Your task to perform on an android device: toggle improve location accuracy Image 0: 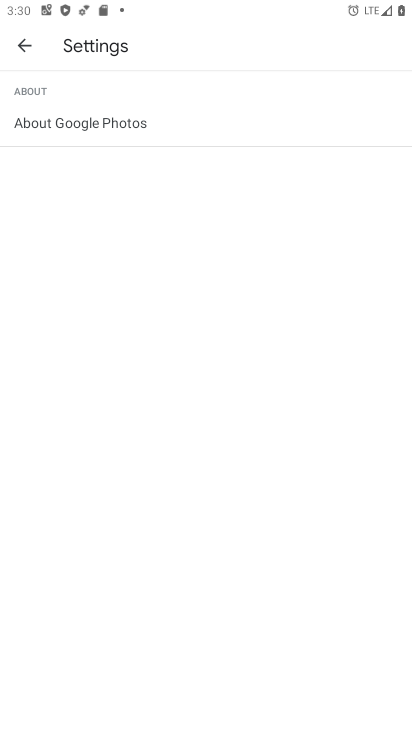
Step 0: press home button
Your task to perform on an android device: toggle improve location accuracy Image 1: 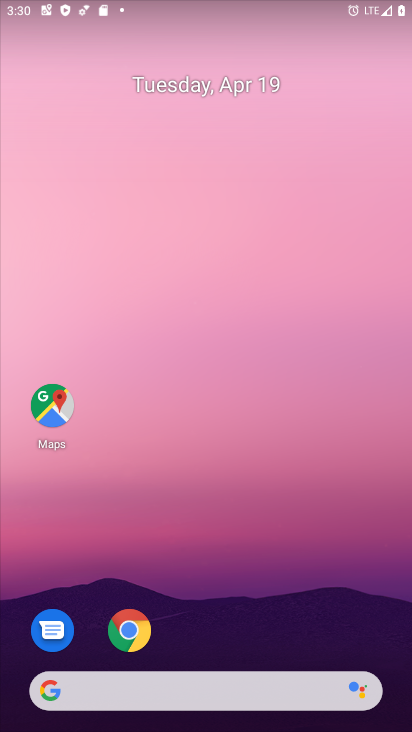
Step 1: drag from (201, 723) to (206, 167)
Your task to perform on an android device: toggle improve location accuracy Image 2: 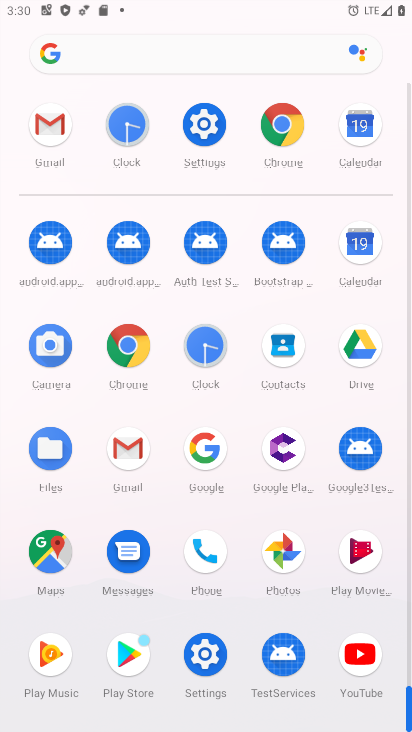
Step 2: click (199, 129)
Your task to perform on an android device: toggle improve location accuracy Image 3: 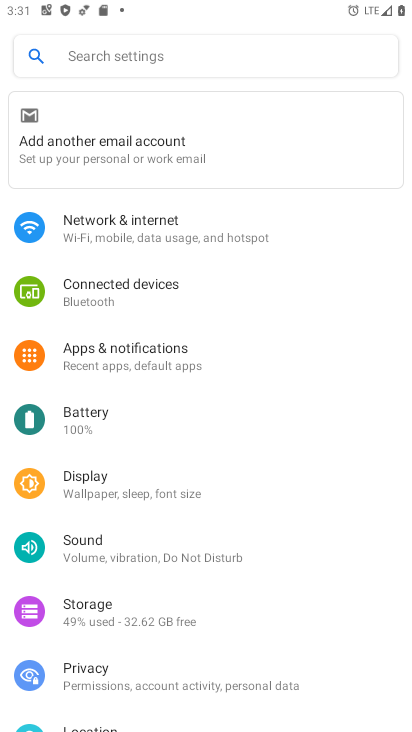
Step 3: drag from (142, 657) to (143, 243)
Your task to perform on an android device: toggle improve location accuracy Image 4: 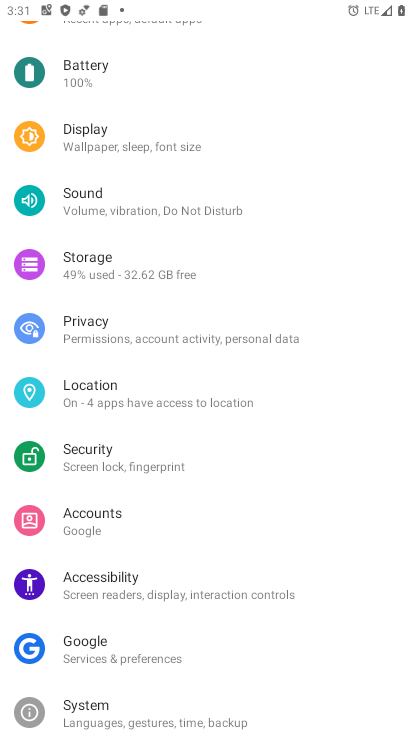
Step 4: click (83, 390)
Your task to perform on an android device: toggle improve location accuracy Image 5: 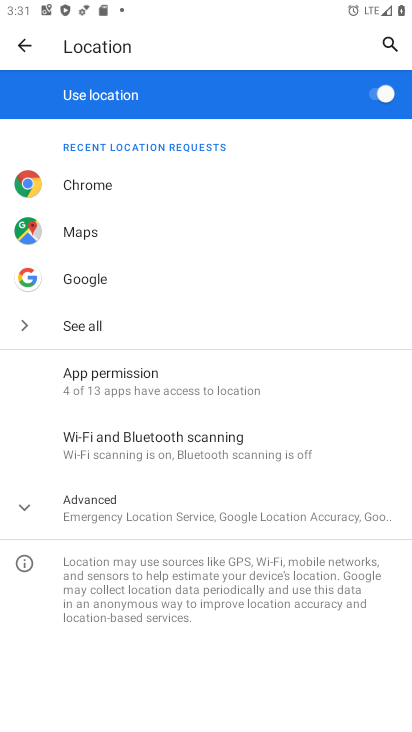
Step 5: click (116, 505)
Your task to perform on an android device: toggle improve location accuracy Image 6: 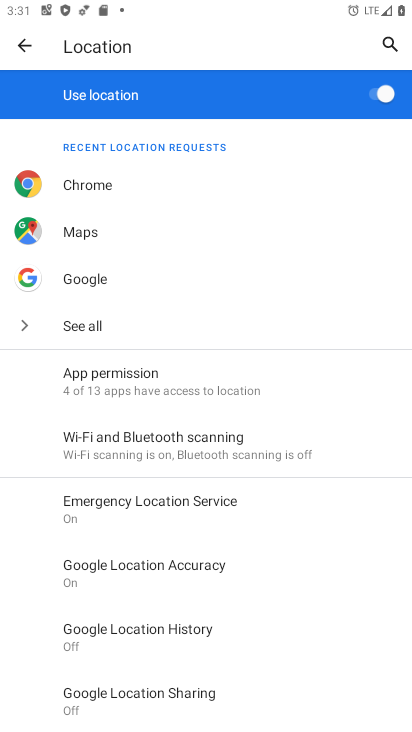
Step 6: click (158, 562)
Your task to perform on an android device: toggle improve location accuracy Image 7: 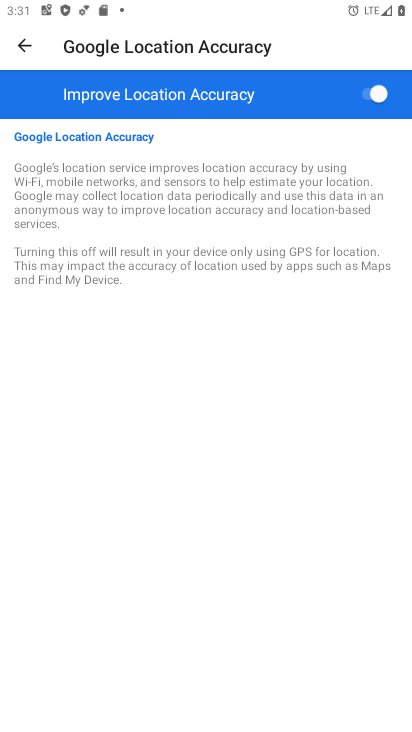
Step 7: click (368, 91)
Your task to perform on an android device: toggle improve location accuracy Image 8: 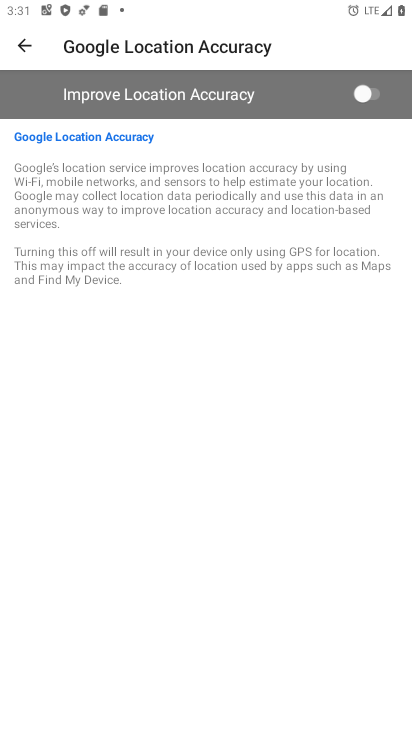
Step 8: task complete